Your task to perform on an android device: Go to sound settings Image 0: 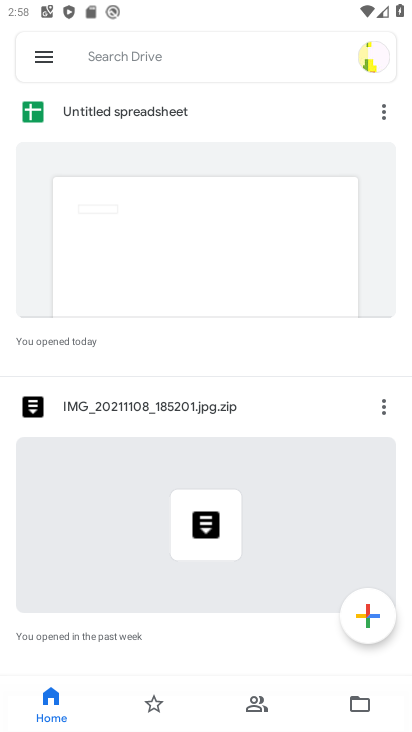
Step 0: press home button
Your task to perform on an android device: Go to sound settings Image 1: 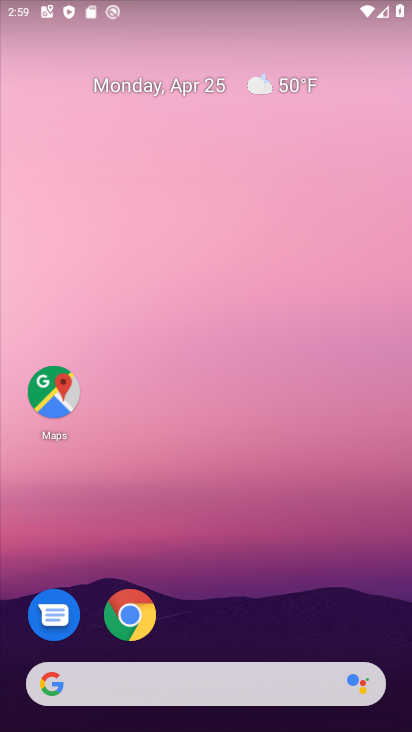
Step 1: drag from (221, 720) to (230, 135)
Your task to perform on an android device: Go to sound settings Image 2: 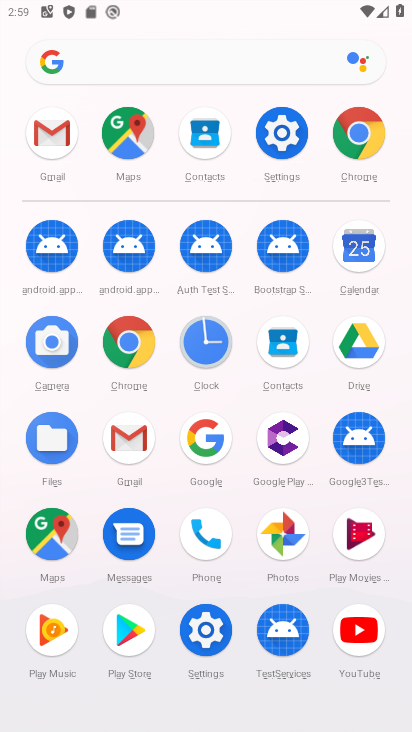
Step 2: click (282, 133)
Your task to perform on an android device: Go to sound settings Image 3: 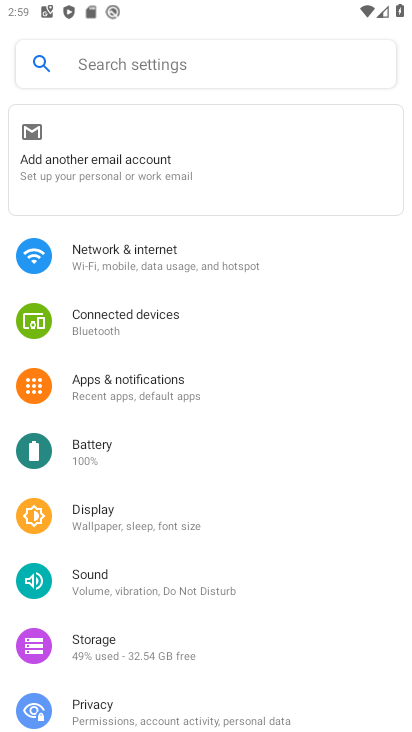
Step 3: click (95, 579)
Your task to perform on an android device: Go to sound settings Image 4: 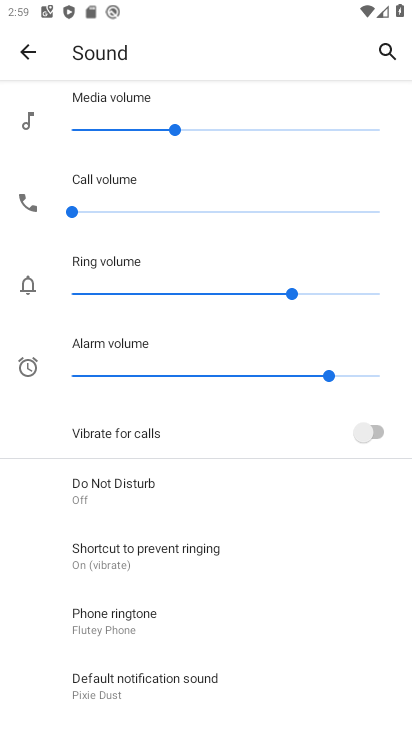
Step 4: task complete